Your task to perform on an android device: change keyboard looks Image 0: 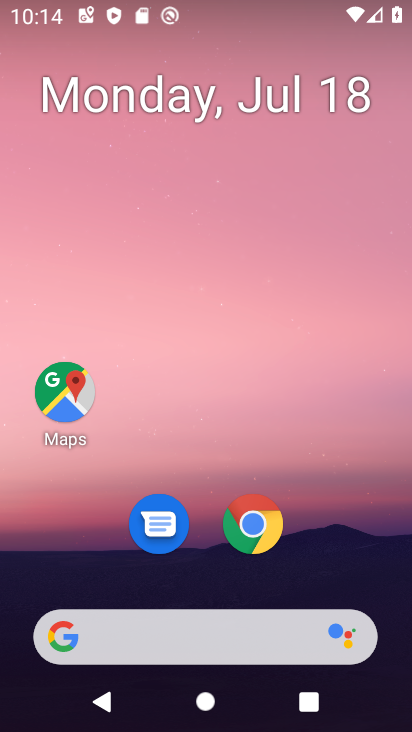
Step 0: drag from (232, 438) to (246, 24)
Your task to perform on an android device: change keyboard looks Image 1: 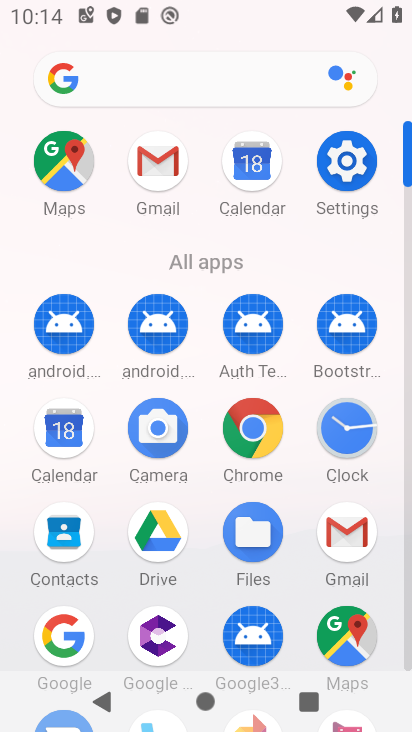
Step 1: click (345, 173)
Your task to perform on an android device: change keyboard looks Image 2: 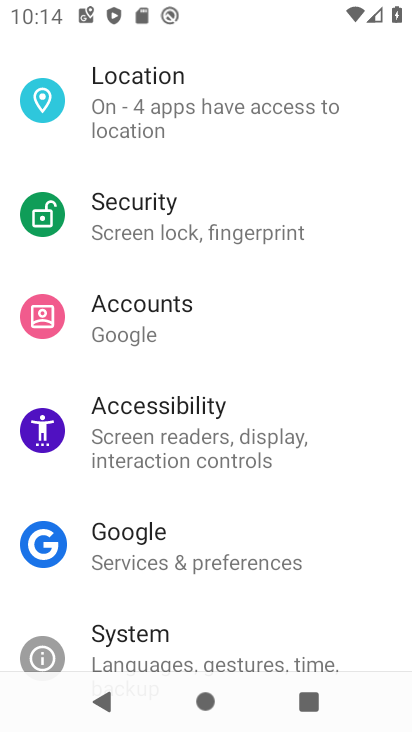
Step 2: click (193, 634)
Your task to perform on an android device: change keyboard looks Image 3: 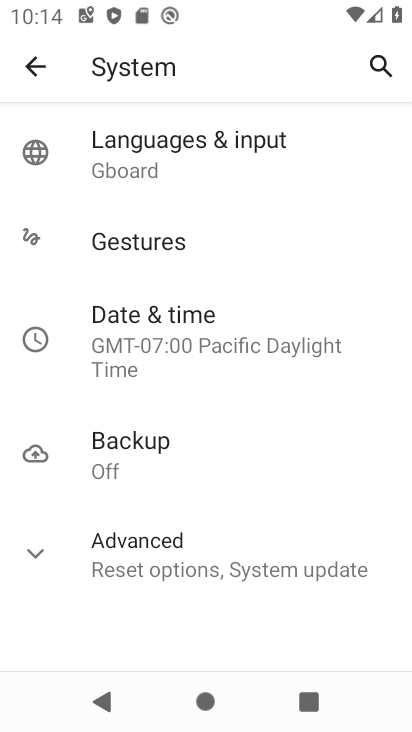
Step 3: click (192, 162)
Your task to perform on an android device: change keyboard looks Image 4: 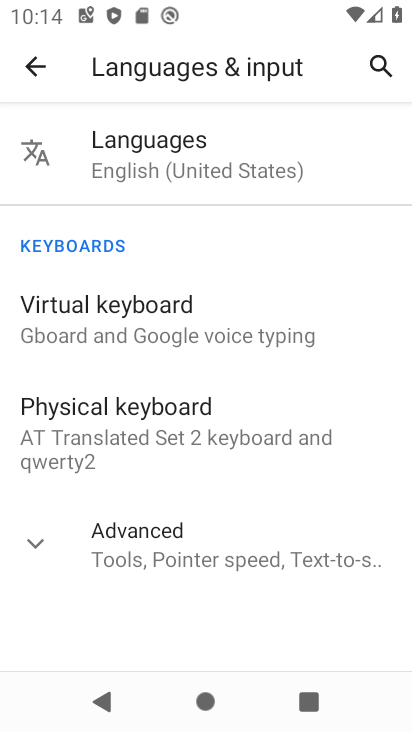
Step 4: click (169, 312)
Your task to perform on an android device: change keyboard looks Image 5: 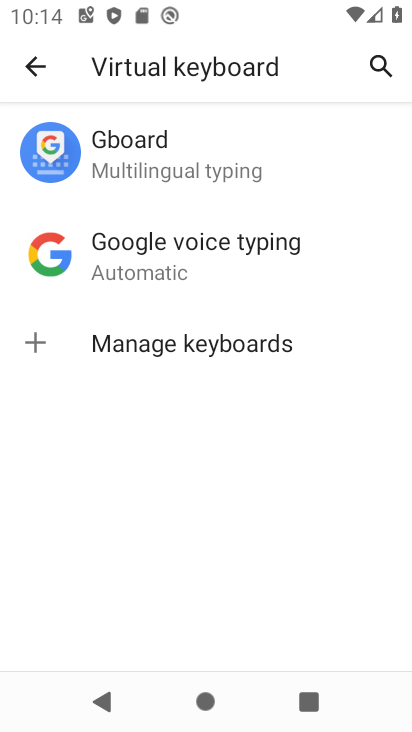
Step 5: click (178, 179)
Your task to perform on an android device: change keyboard looks Image 6: 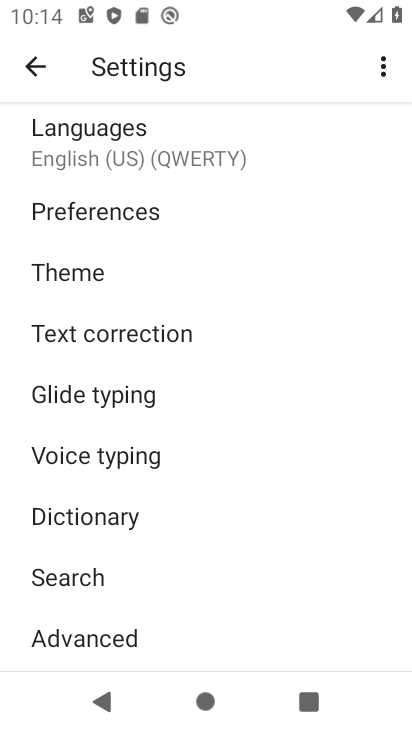
Step 6: click (85, 277)
Your task to perform on an android device: change keyboard looks Image 7: 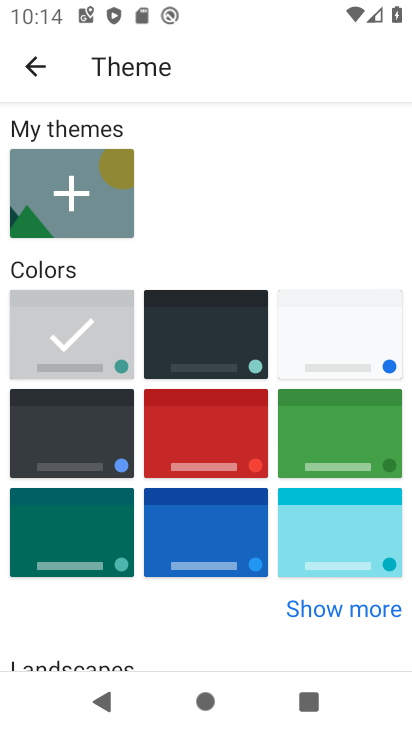
Step 7: click (191, 427)
Your task to perform on an android device: change keyboard looks Image 8: 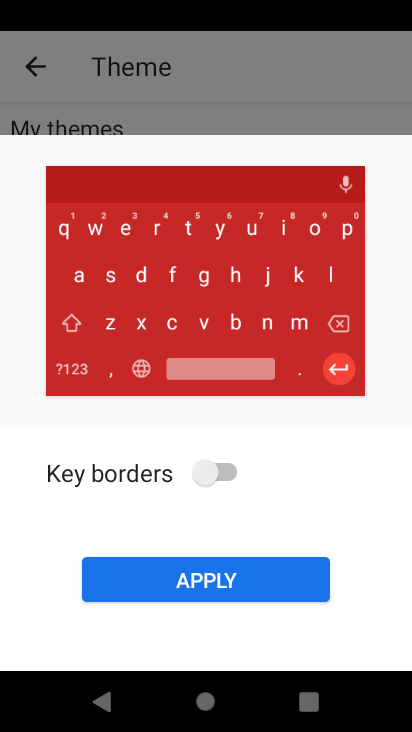
Step 8: click (223, 475)
Your task to perform on an android device: change keyboard looks Image 9: 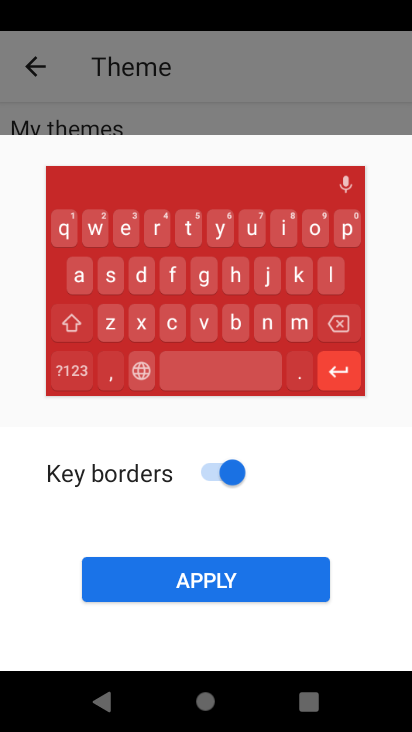
Step 9: click (233, 579)
Your task to perform on an android device: change keyboard looks Image 10: 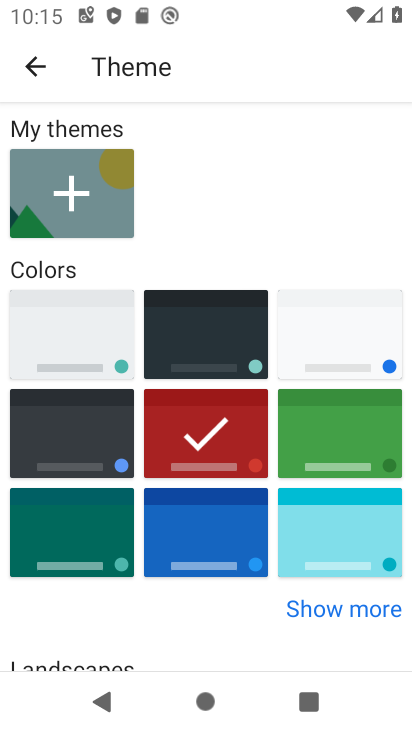
Step 10: task complete